Your task to perform on an android device: open sync settings in chrome Image 0: 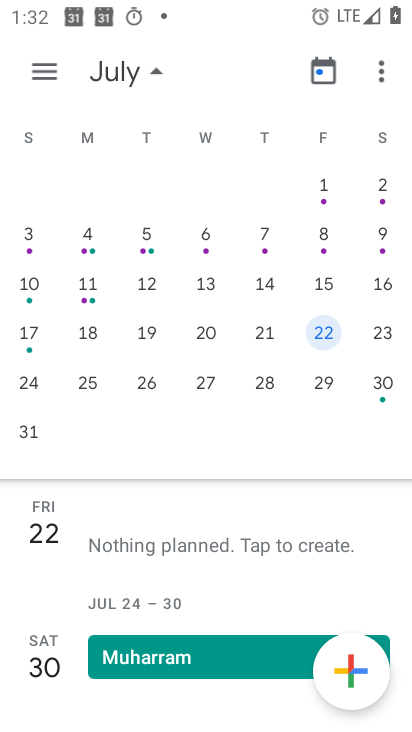
Step 0: press home button
Your task to perform on an android device: open sync settings in chrome Image 1: 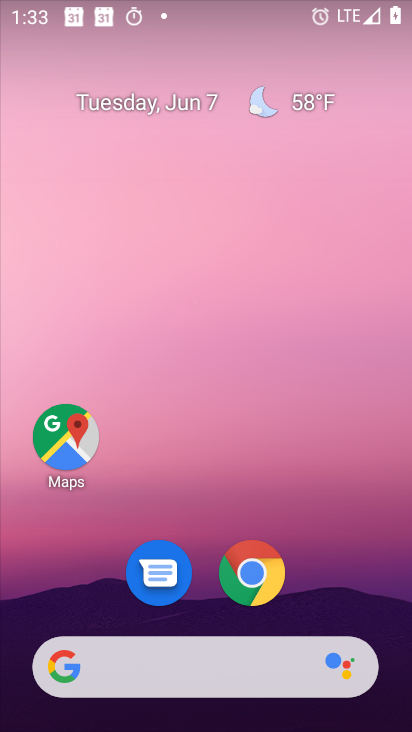
Step 1: drag from (308, 534) to (281, 44)
Your task to perform on an android device: open sync settings in chrome Image 2: 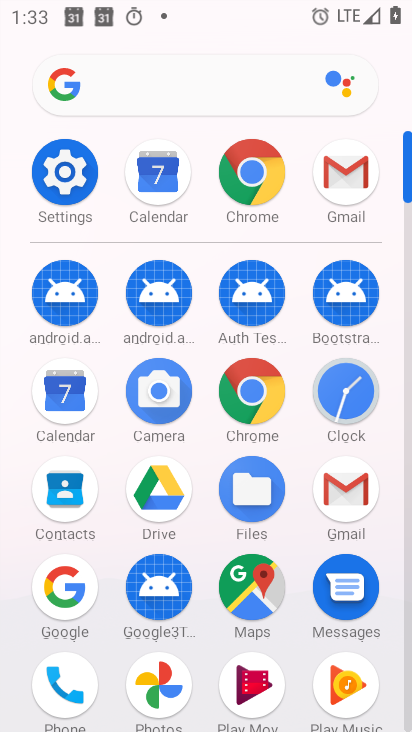
Step 2: click (253, 381)
Your task to perform on an android device: open sync settings in chrome Image 3: 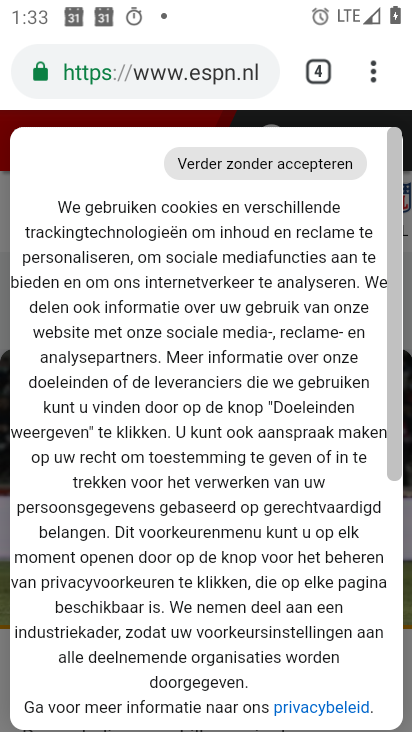
Step 3: drag from (368, 65) to (141, 566)
Your task to perform on an android device: open sync settings in chrome Image 4: 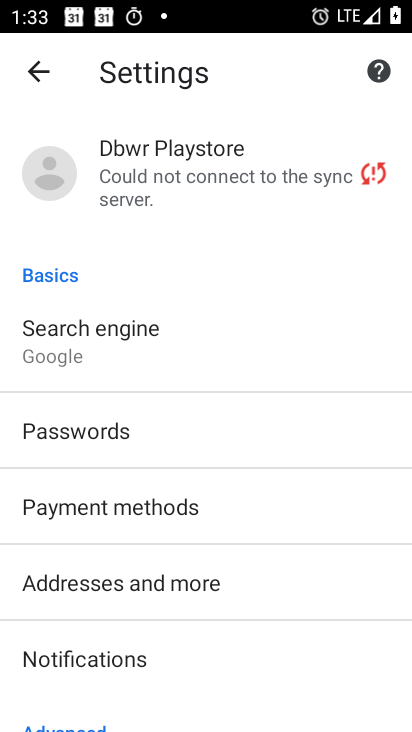
Step 4: click (101, 155)
Your task to perform on an android device: open sync settings in chrome Image 5: 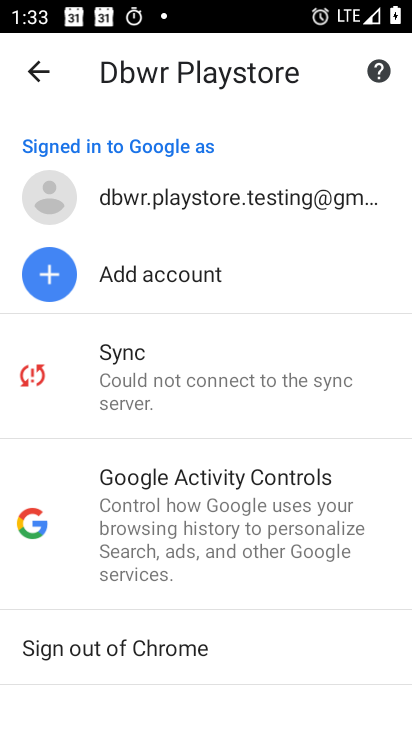
Step 5: click (119, 390)
Your task to perform on an android device: open sync settings in chrome Image 6: 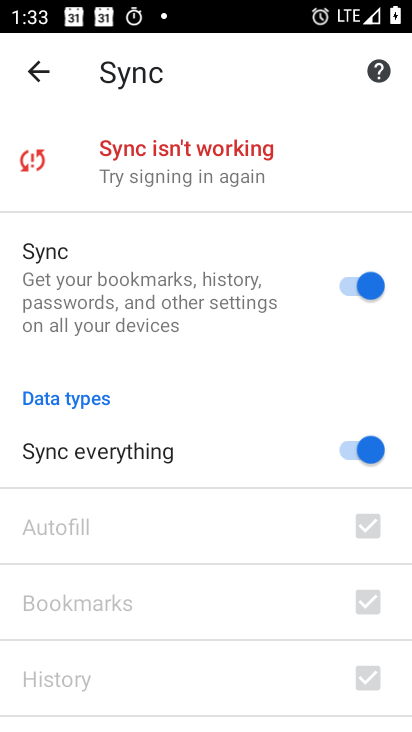
Step 6: task complete